Your task to perform on an android device: Clear the cart on costco. Add "corsair k70" to the cart on costco Image 0: 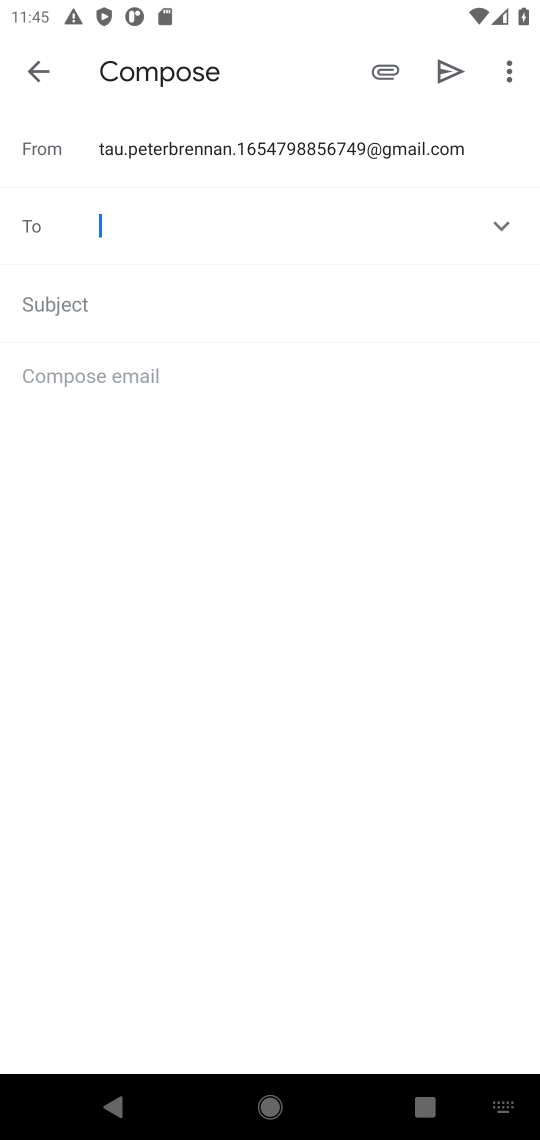
Step 0: press home button
Your task to perform on an android device: Clear the cart on costco. Add "corsair k70" to the cart on costco Image 1: 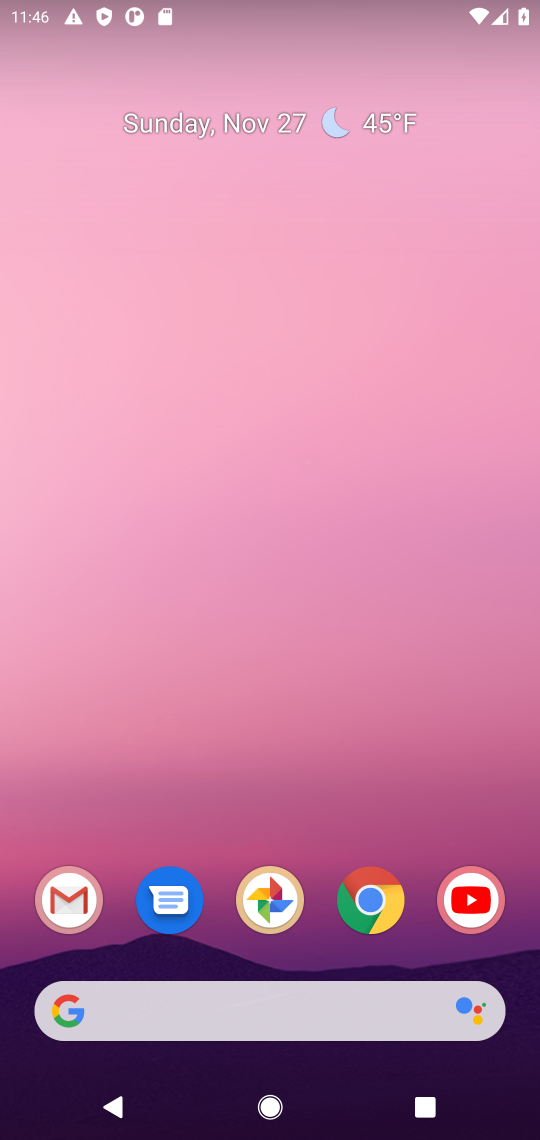
Step 1: click (372, 896)
Your task to perform on an android device: Clear the cart on costco. Add "corsair k70" to the cart on costco Image 2: 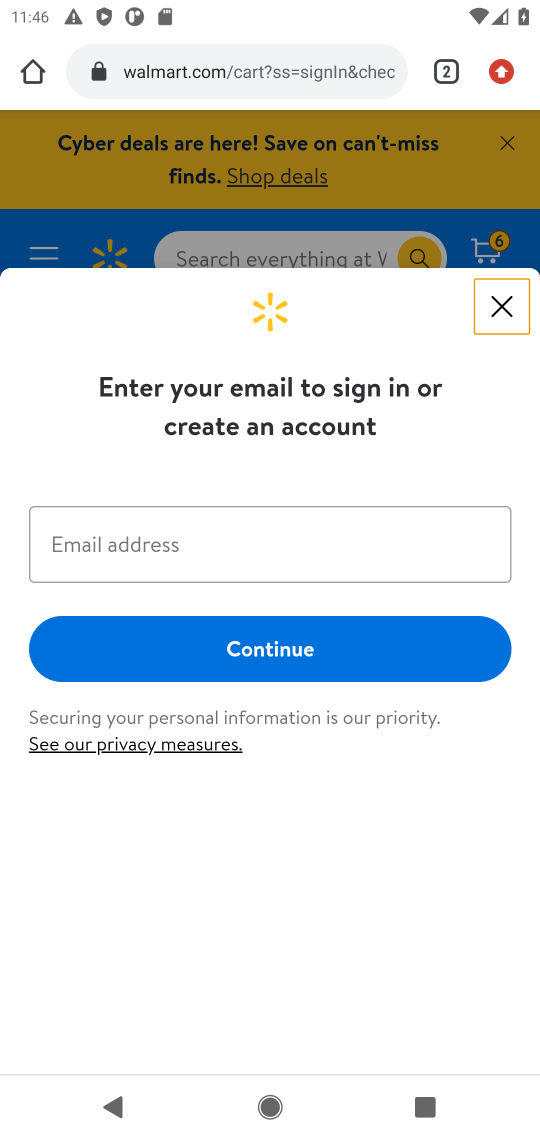
Step 2: click (223, 69)
Your task to perform on an android device: Clear the cart on costco. Add "corsair k70" to the cart on costco Image 3: 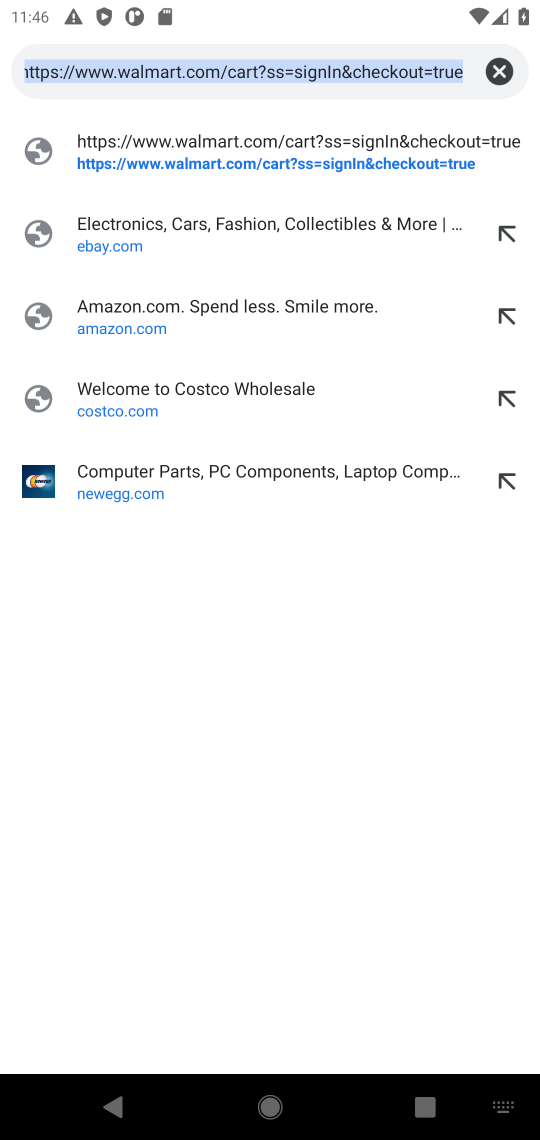
Step 3: click (109, 400)
Your task to perform on an android device: Clear the cart on costco. Add "corsair k70" to the cart on costco Image 4: 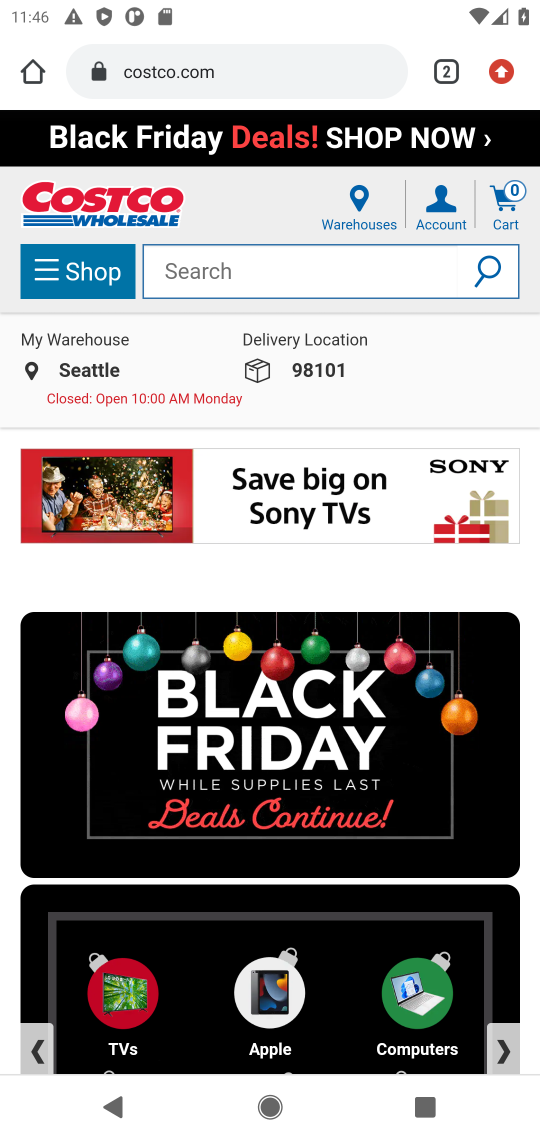
Step 4: click (507, 212)
Your task to perform on an android device: Clear the cart on costco. Add "corsair k70" to the cart on costco Image 5: 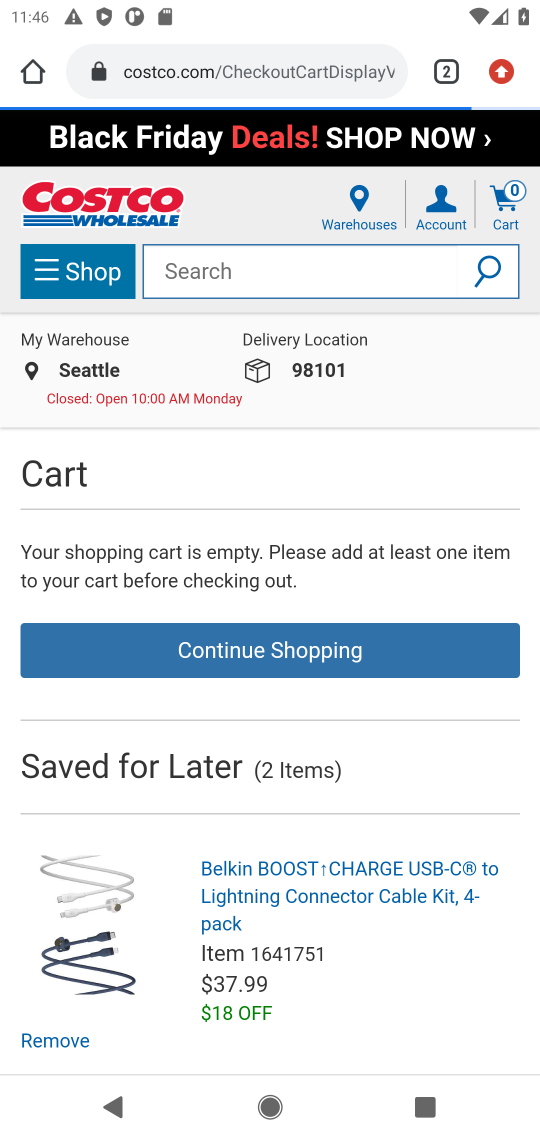
Step 5: drag from (218, 746) to (262, 383)
Your task to perform on an android device: Clear the cart on costco. Add "corsair k70" to the cart on costco Image 6: 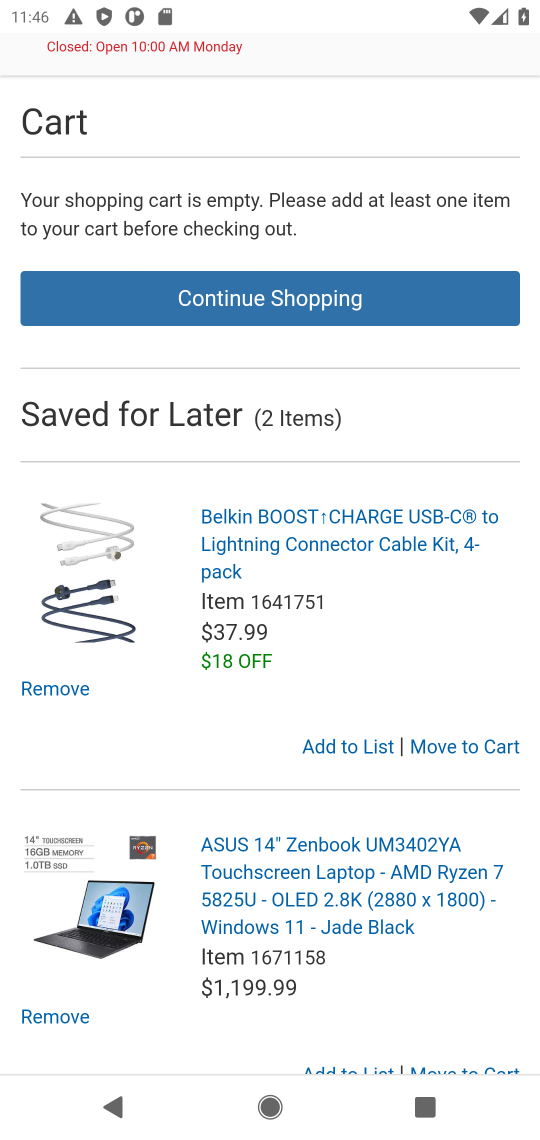
Step 6: click (439, 752)
Your task to perform on an android device: Clear the cart on costco. Add "corsair k70" to the cart on costco Image 7: 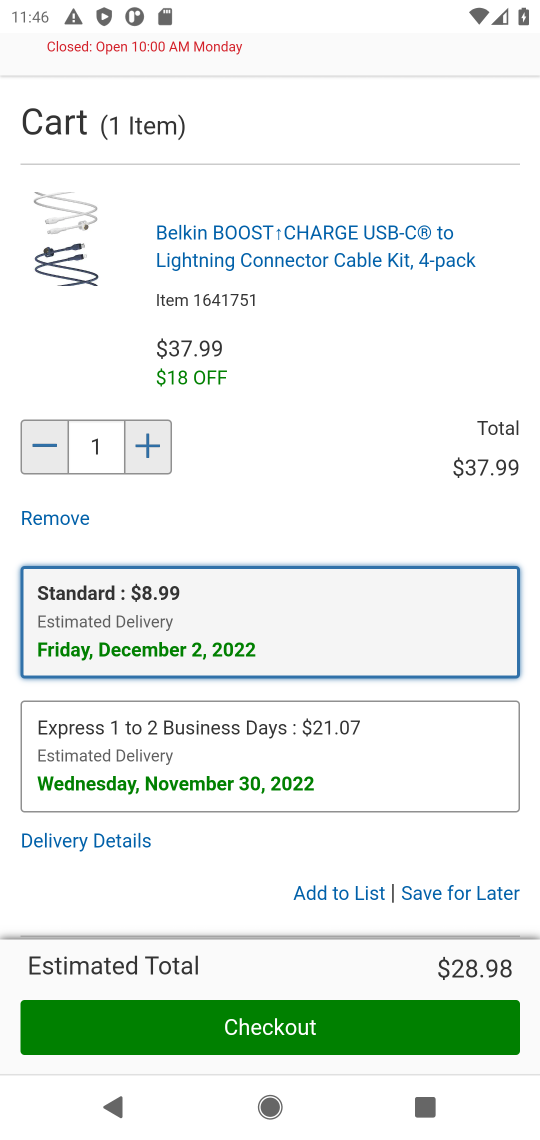
Step 7: click (434, 895)
Your task to perform on an android device: Clear the cart on costco. Add "corsair k70" to the cart on costco Image 8: 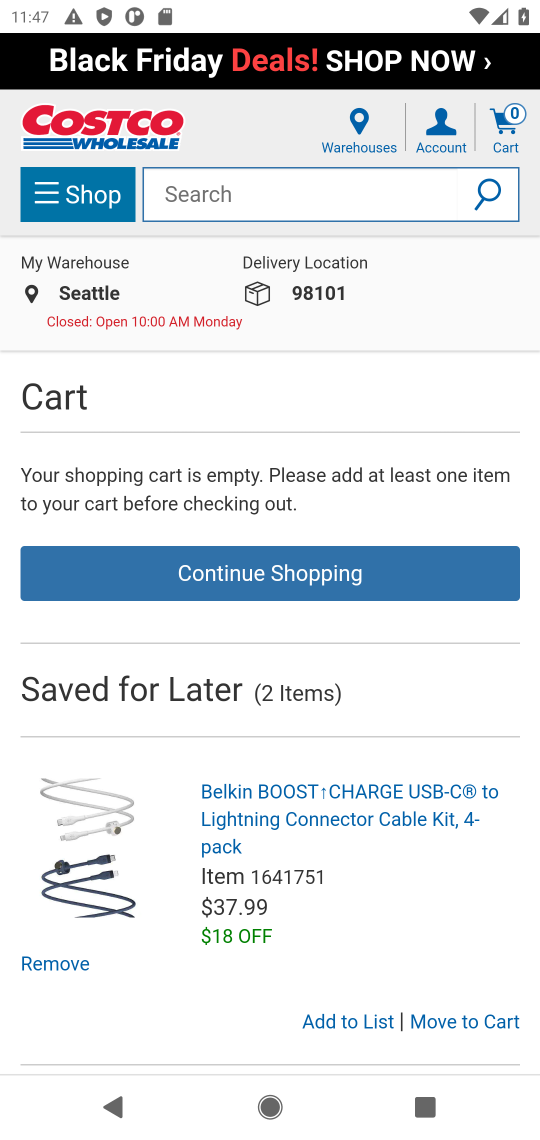
Step 8: click (248, 205)
Your task to perform on an android device: Clear the cart on costco. Add "corsair k70" to the cart on costco Image 9: 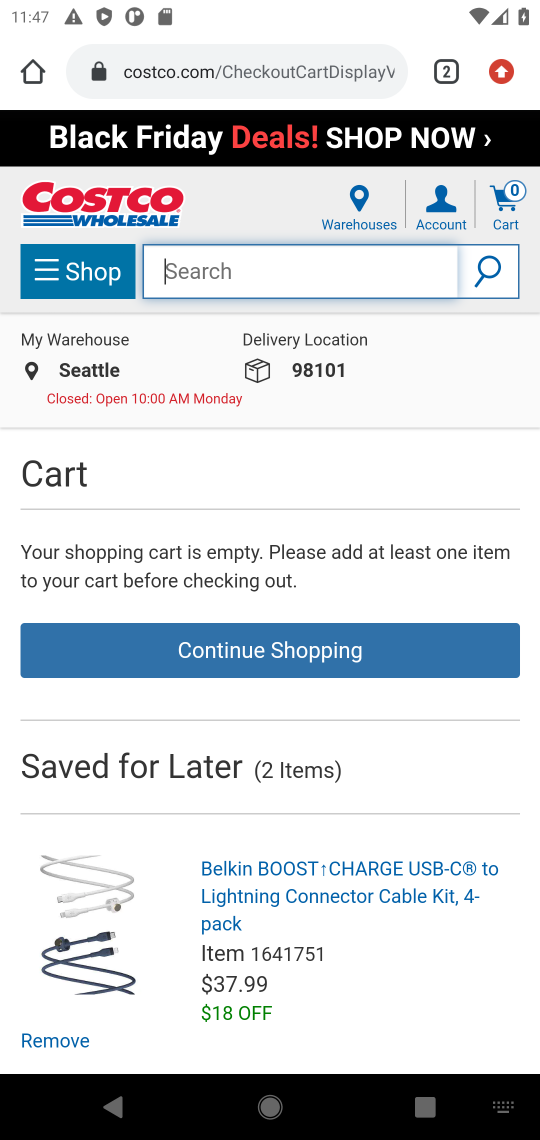
Step 9: type "corsair k70"
Your task to perform on an android device: Clear the cart on costco. Add "corsair k70" to the cart on costco Image 10: 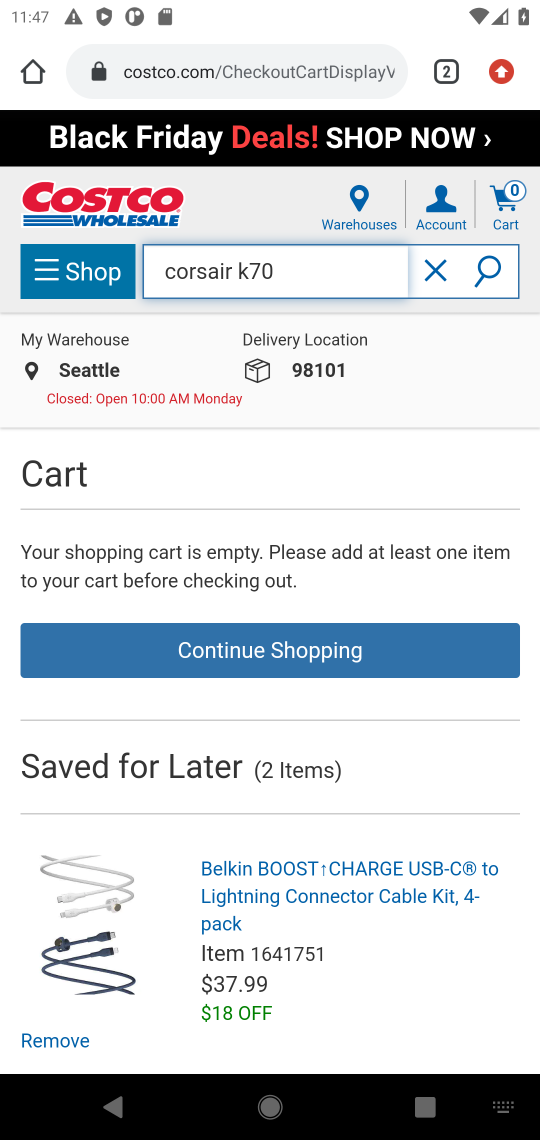
Step 10: click (492, 278)
Your task to perform on an android device: Clear the cart on costco. Add "corsair k70" to the cart on costco Image 11: 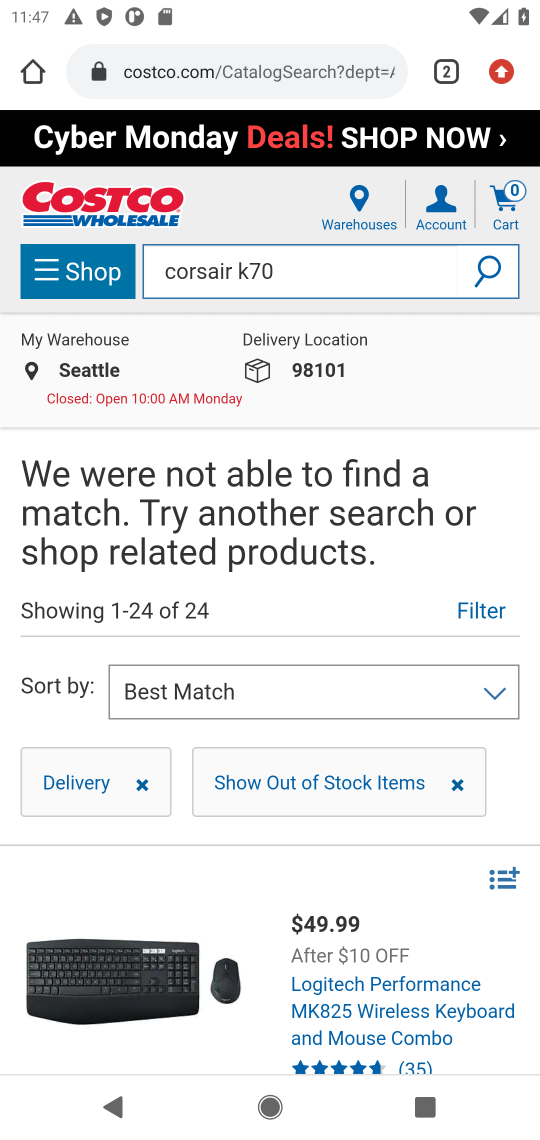
Step 11: task complete